Your task to perform on an android device: Search for seafood restaurants on Google Maps Image 0: 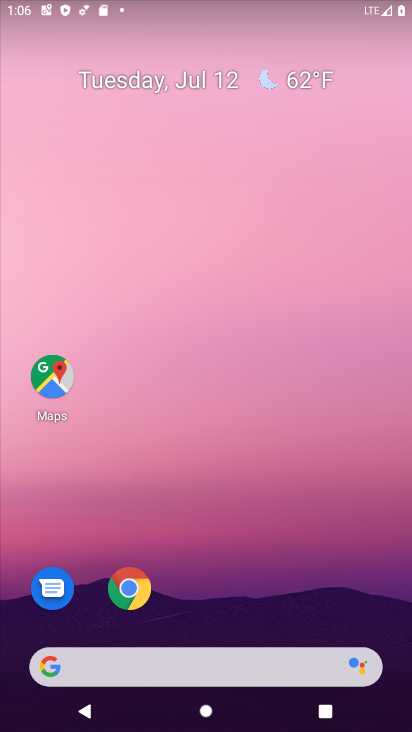
Step 0: click (60, 361)
Your task to perform on an android device: Search for seafood restaurants on Google Maps Image 1: 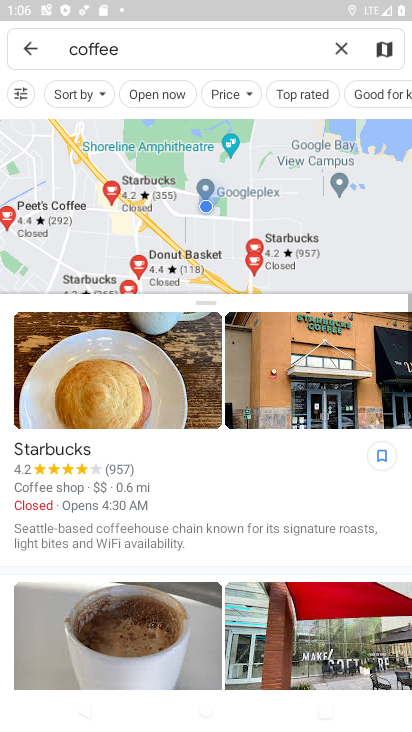
Step 1: click (333, 50)
Your task to perform on an android device: Search for seafood restaurants on Google Maps Image 2: 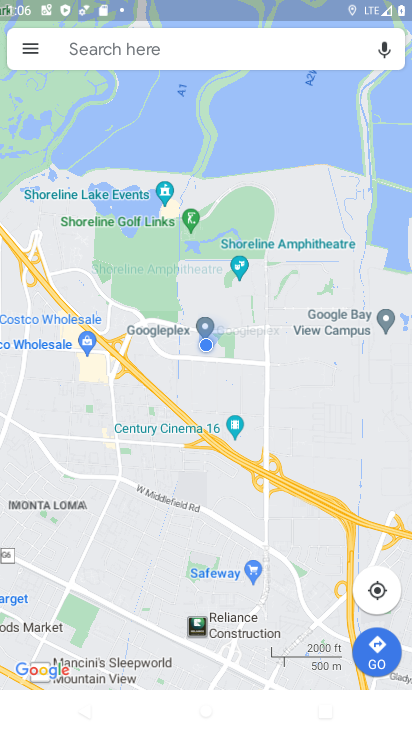
Step 2: click (136, 54)
Your task to perform on an android device: Search for seafood restaurants on Google Maps Image 3: 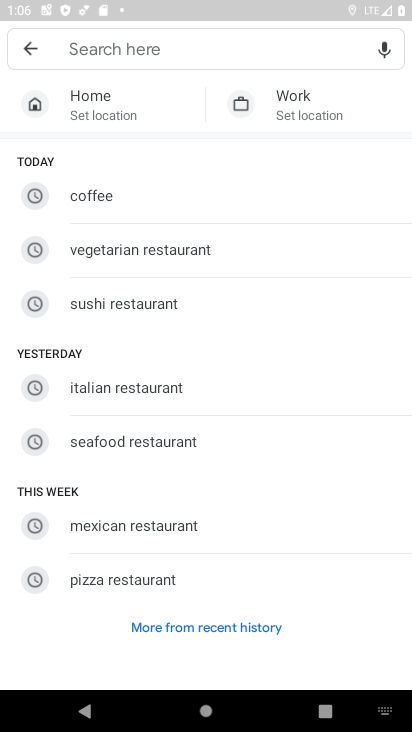
Step 3: click (94, 444)
Your task to perform on an android device: Search for seafood restaurants on Google Maps Image 4: 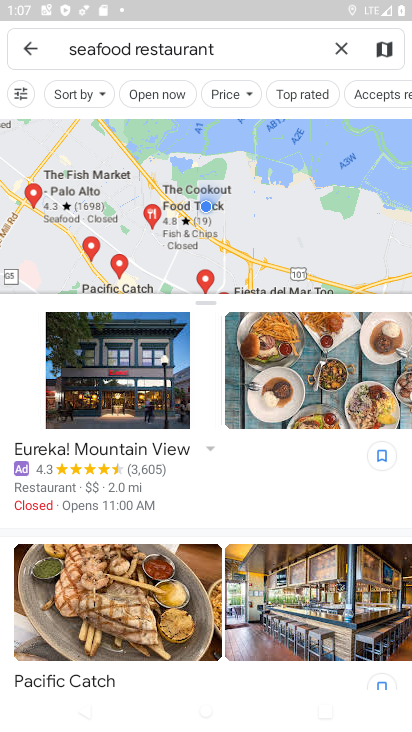
Step 4: task complete